Your task to perform on an android device: Add "dell xps" to the cart on ebay.com Image 0: 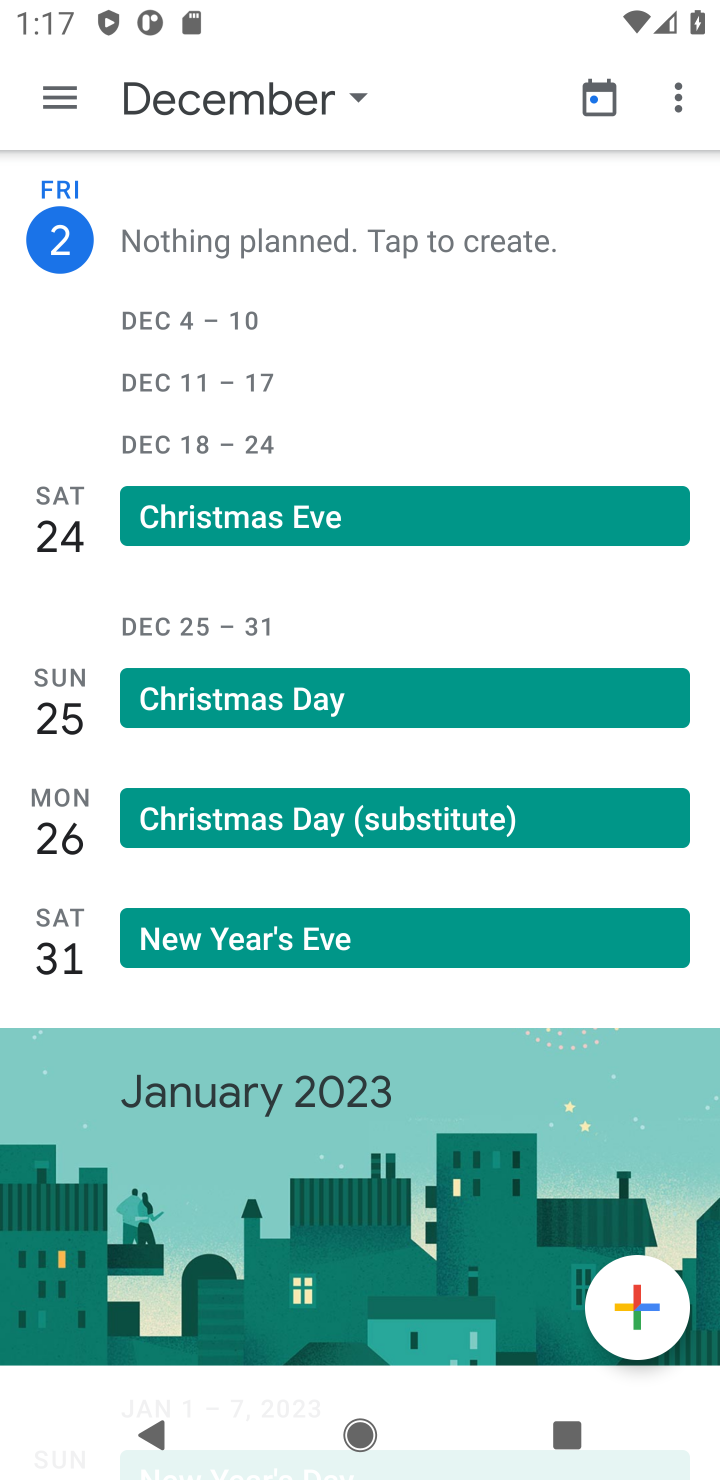
Step 0: task complete